Your task to perform on an android device: Open Amazon Image 0: 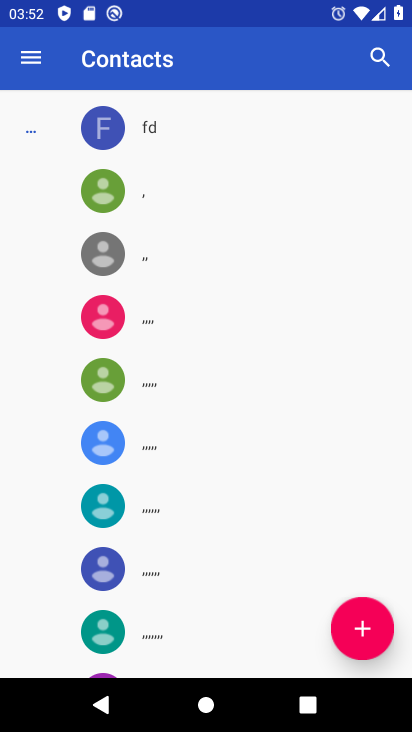
Step 0: press home button
Your task to perform on an android device: Open Amazon Image 1: 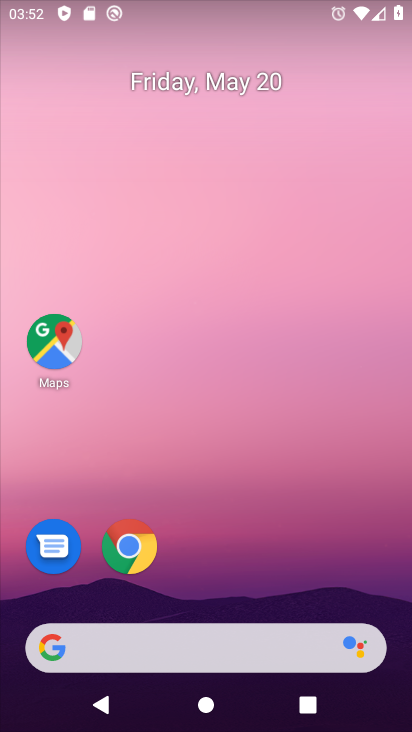
Step 1: click (137, 543)
Your task to perform on an android device: Open Amazon Image 2: 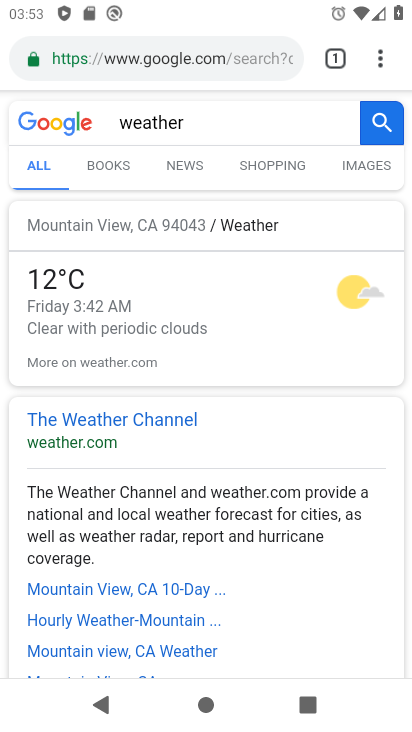
Step 2: click (236, 59)
Your task to perform on an android device: Open Amazon Image 3: 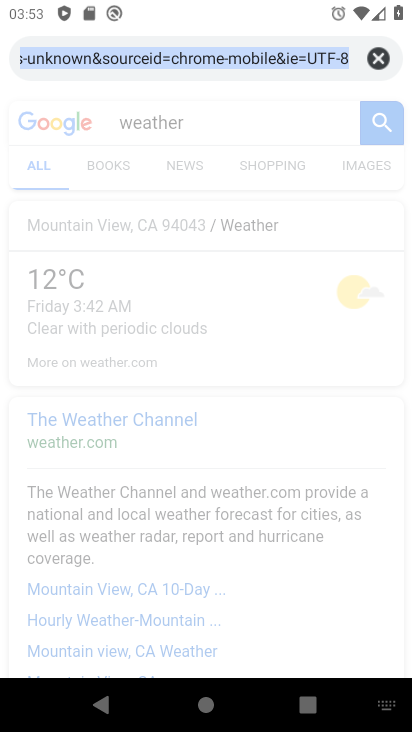
Step 3: click (377, 61)
Your task to perform on an android device: Open Amazon Image 4: 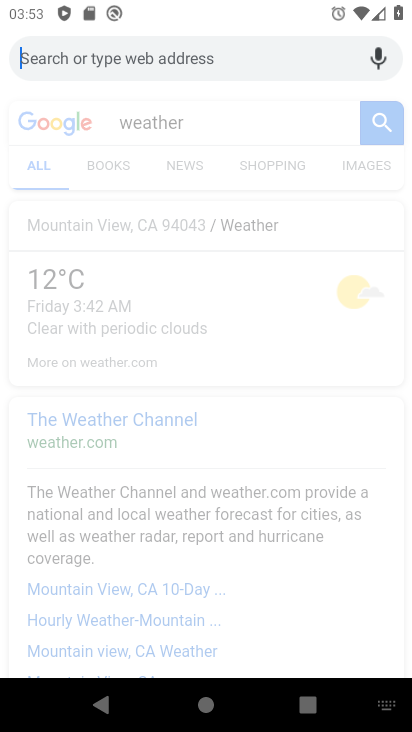
Step 4: type "amazon"
Your task to perform on an android device: Open Amazon Image 5: 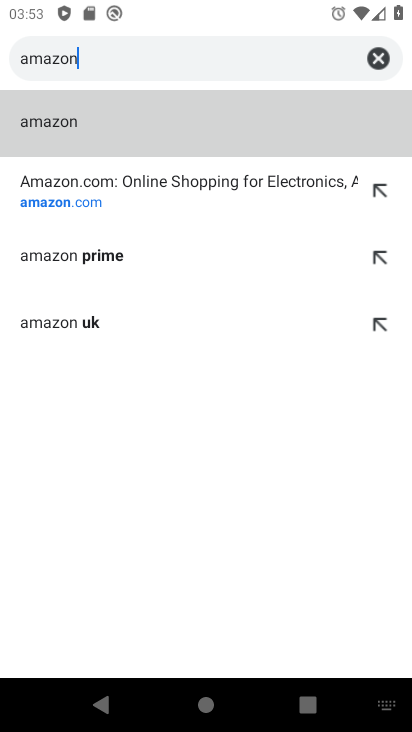
Step 5: click (50, 127)
Your task to perform on an android device: Open Amazon Image 6: 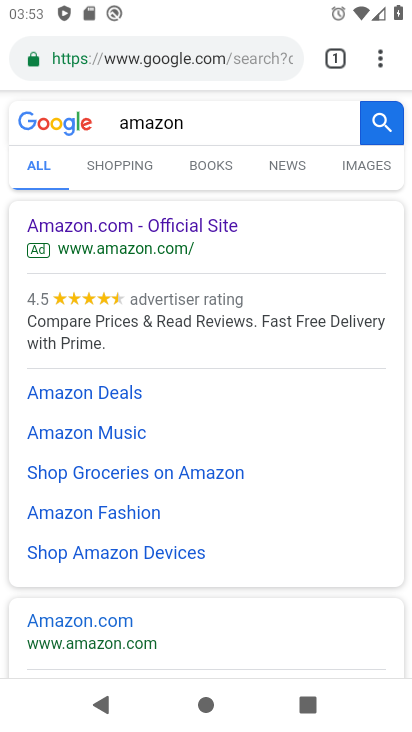
Step 6: click (71, 625)
Your task to perform on an android device: Open Amazon Image 7: 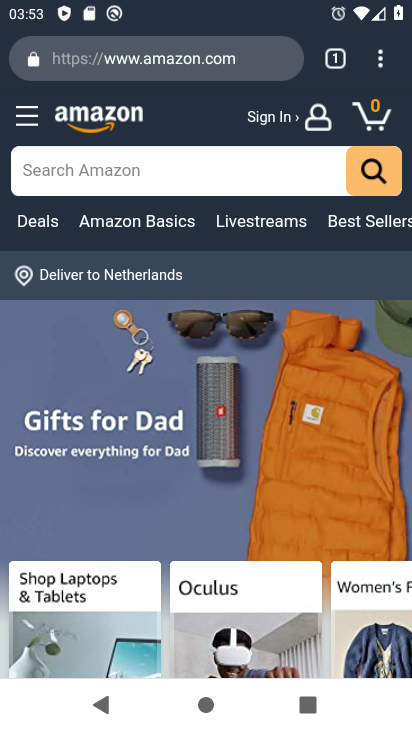
Step 7: task complete